Your task to perform on an android device: Go to settings Image 0: 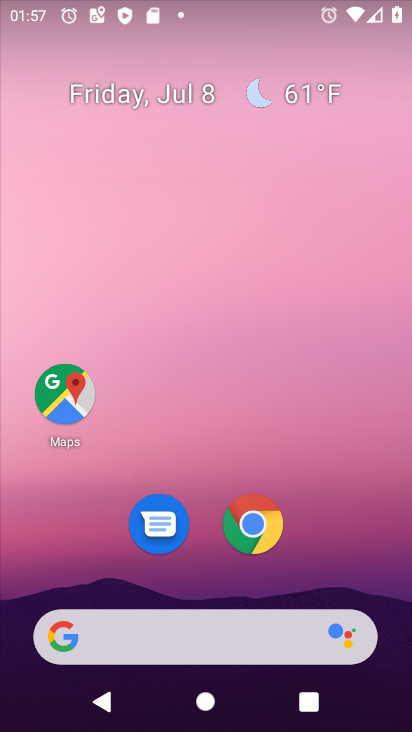
Step 0: drag from (365, 354) to (402, 0)
Your task to perform on an android device: Go to settings Image 1: 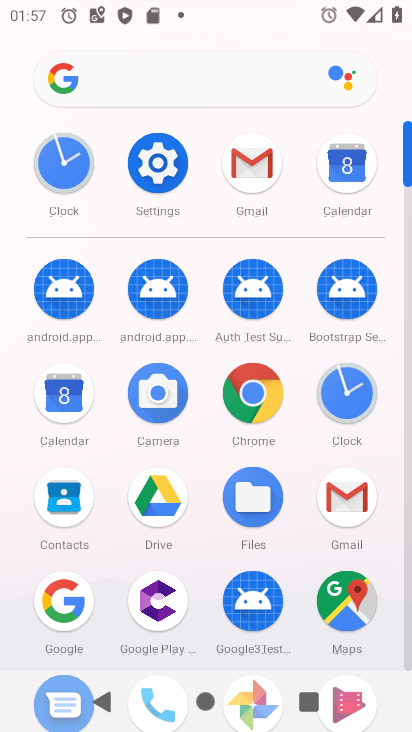
Step 1: click (169, 166)
Your task to perform on an android device: Go to settings Image 2: 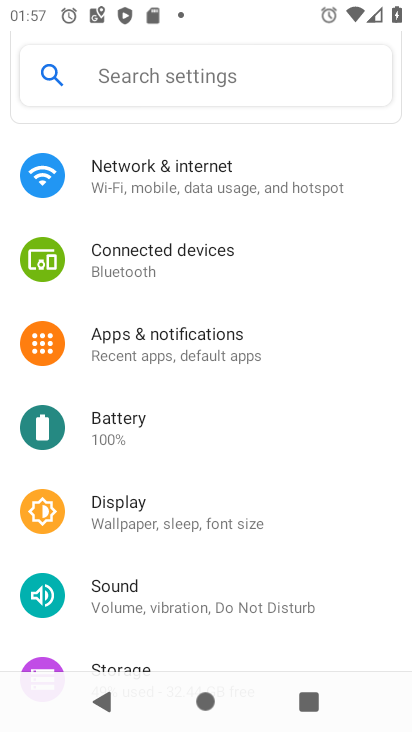
Step 2: task complete